Your task to perform on an android device: turn on translation in the chrome app Image 0: 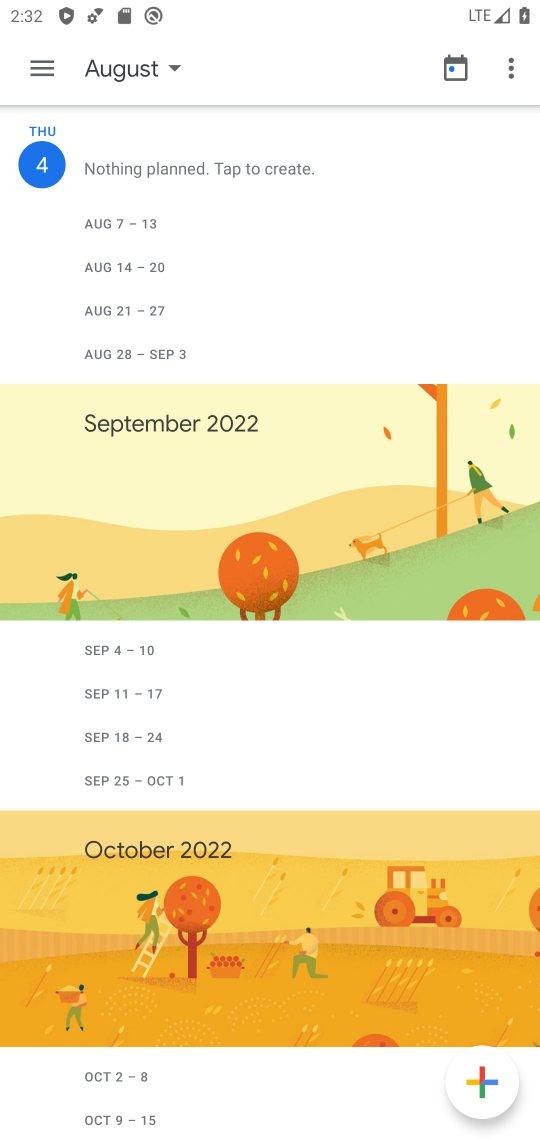
Step 0: press home button
Your task to perform on an android device: turn on translation in the chrome app Image 1: 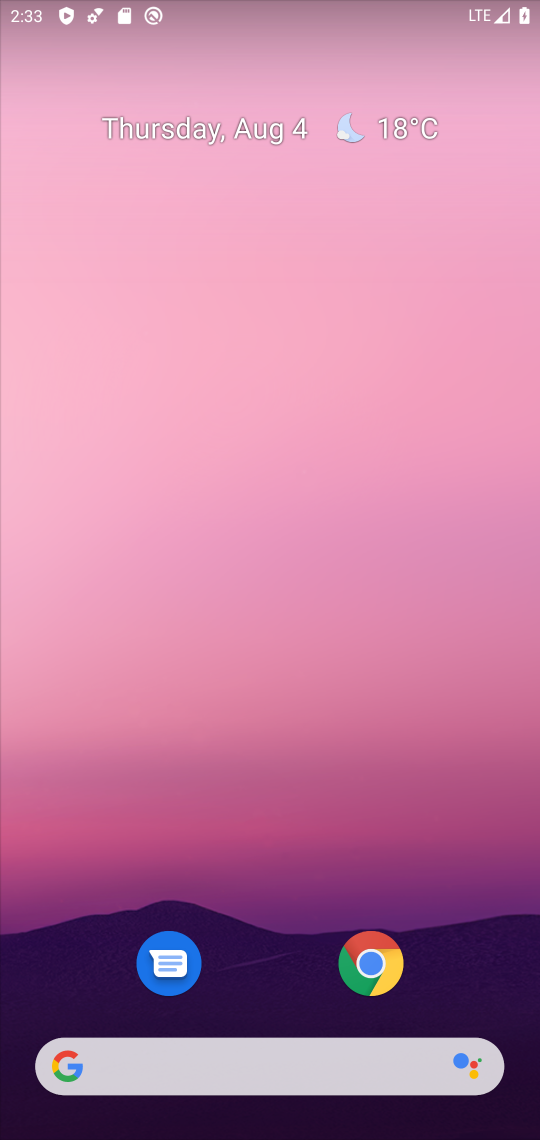
Step 1: click (372, 970)
Your task to perform on an android device: turn on translation in the chrome app Image 2: 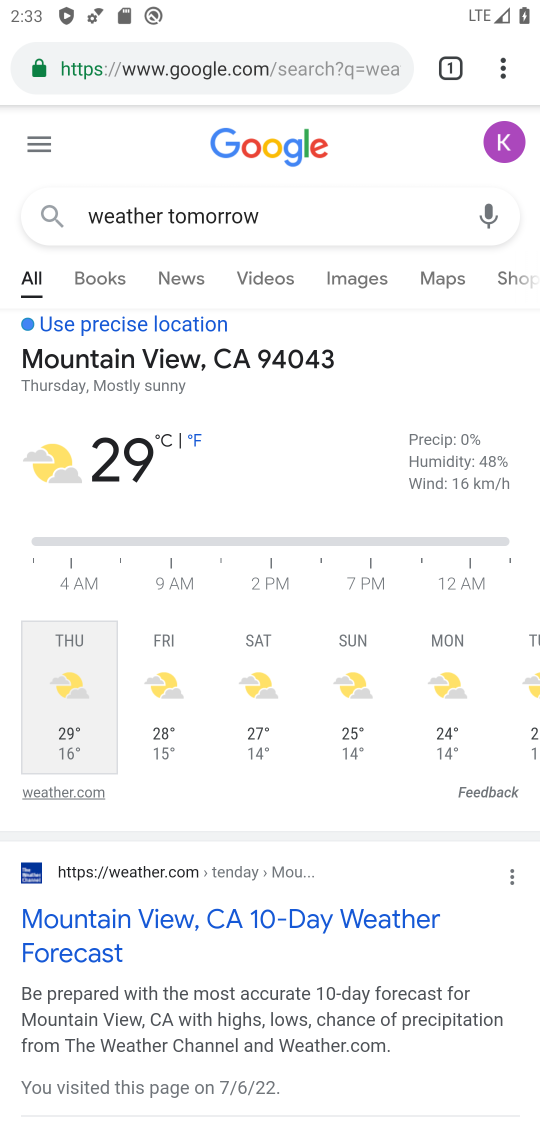
Step 2: drag from (502, 65) to (294, 831)
Your task to perform on an android device: turn on translation in the chrome app Image 3: 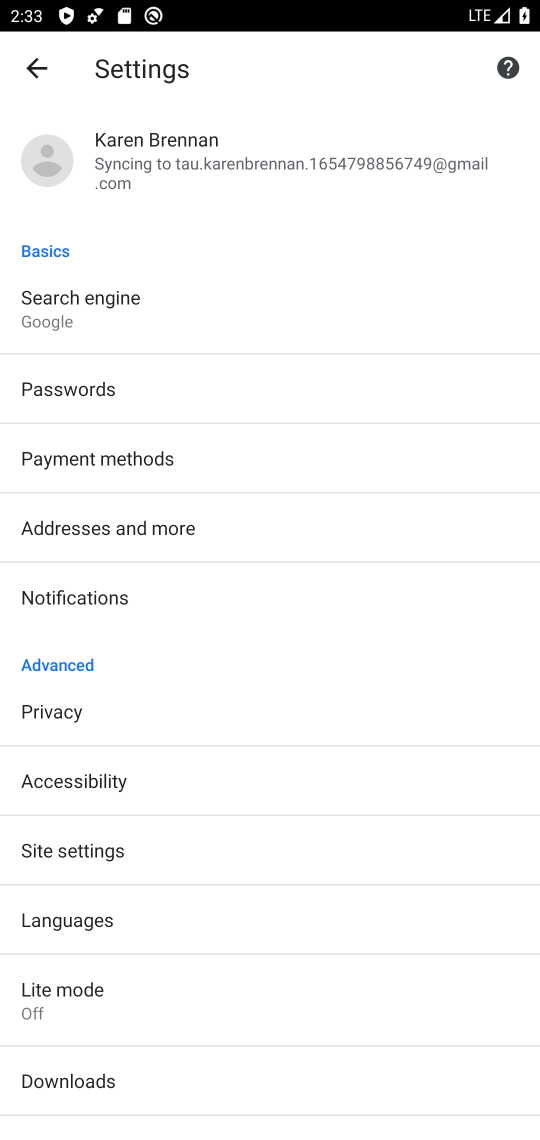
Step 3: click (129, 911)
Your task to perform on an android device: turn on translation in the chrome app Image 4: 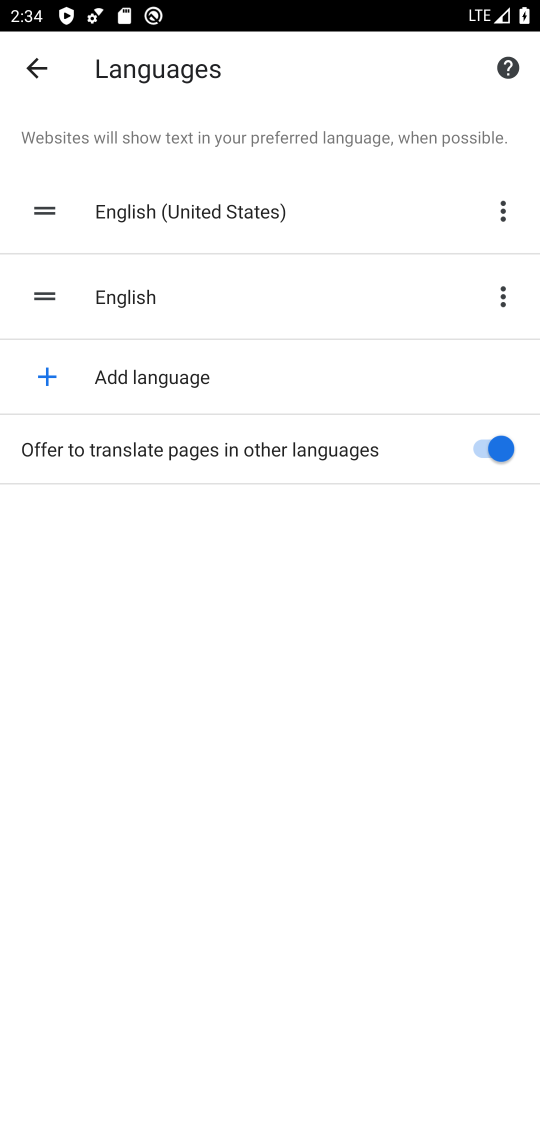
Step 4: task complete